Your task to perform on an android device: toggle pop-ups in chrome Image 0: 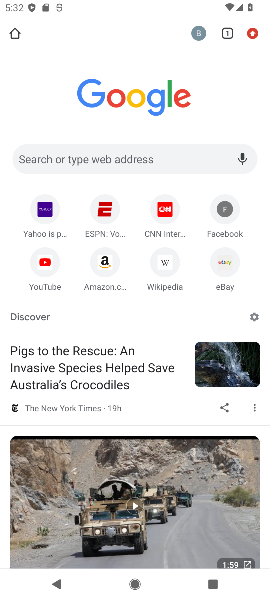
Step 0: press home button
Your task to perform on an android device: toggle pop-ups in chrome Image 1: 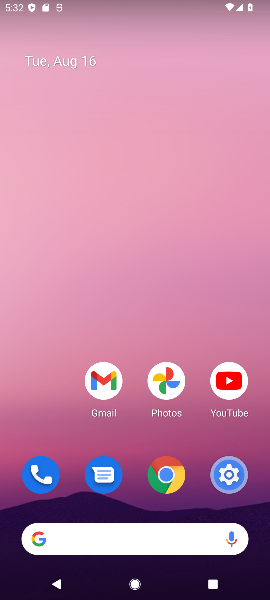
Step 1: drag from (214, 490) to (183, 86)
Your task to perform on an android device: toggle pop-ups in chrome Image 2: 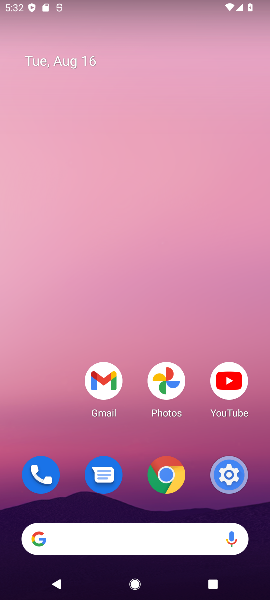
Step 2: drag from (199, 505) to (50, 43)
Your task to perform on an android device: toggle pop-ups in chrome Image 3: 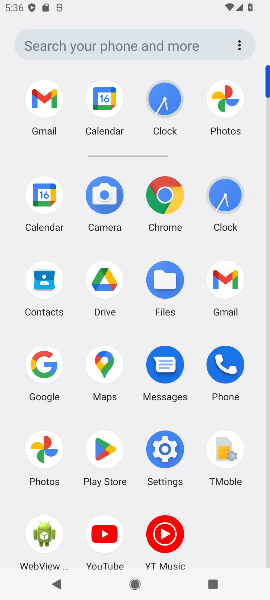
Step 3: click (169, 208)
Your task to perform on an android device: toggle pop-ups in chrome Image 4: 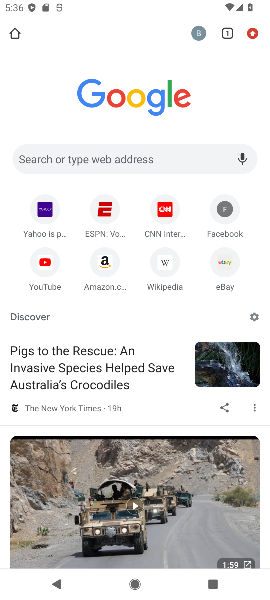
Step 4: click (252, 34)
Your task to perform on an android device: toggle pop-ups in chrome Image 5: 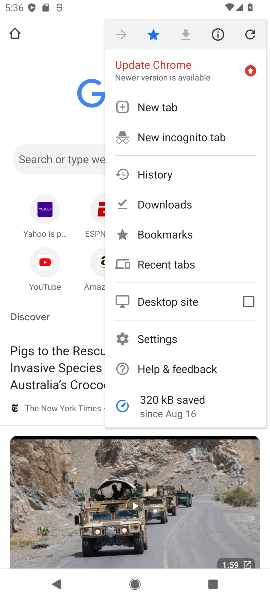
Step 5: click (168, 351)
Your task to perform on an android device: toggle pop-ups in chrome Image 6: 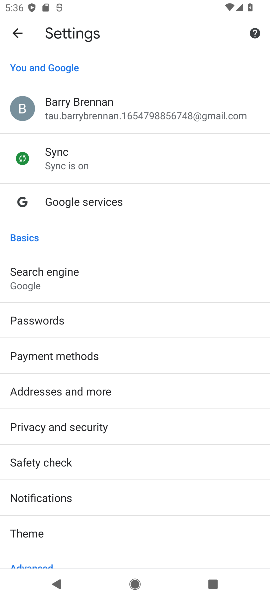
Step 6: drag from (45, 514) to (69, 151)
Your task to perform on an android device: toggle pop-ups in chrome Image 7: 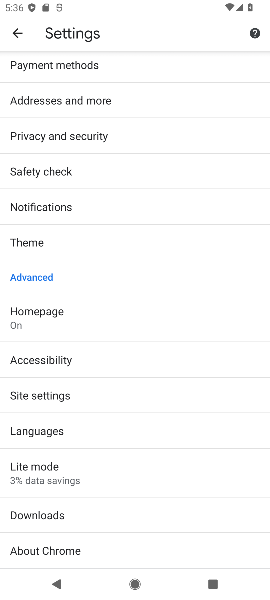
Step 7: click (72, 391)
Your task to perform on an android device: toggle pop-ups in chrome Image 8: 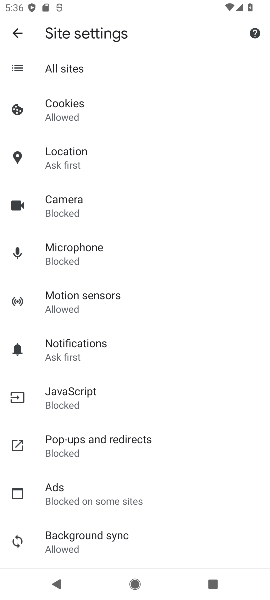
Step 8: click (143, 439)
Your task to perform on an android device: toggle pop-ups in chrome Image 9: 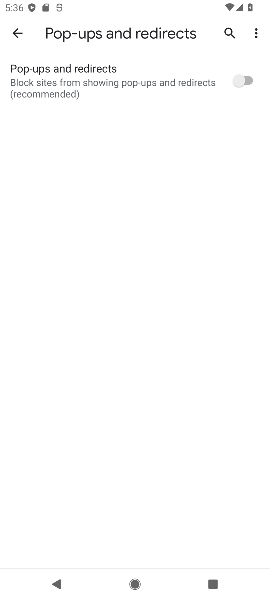
Step 9: click (255, 74)
Your task to perform on an android device: toggle pop-ups in chrome Image 10: 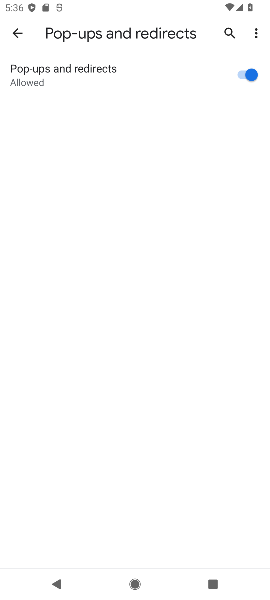
Step 10: task complete